Your task to perform on an android device: Open notification settings Image 0: 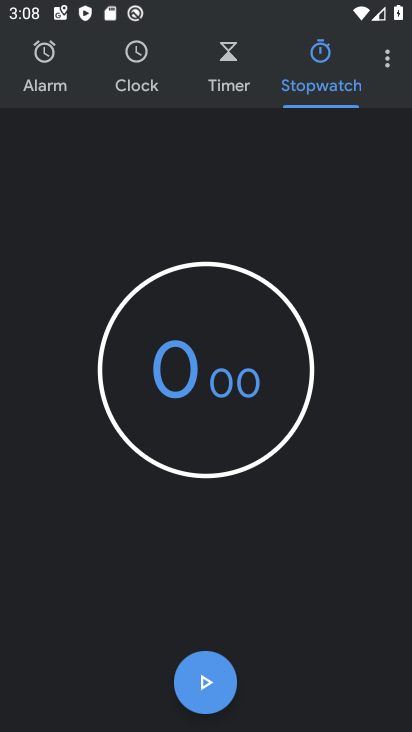
Step 0: press home button
Your task to perform on an android device: Open notification settings Image 1: 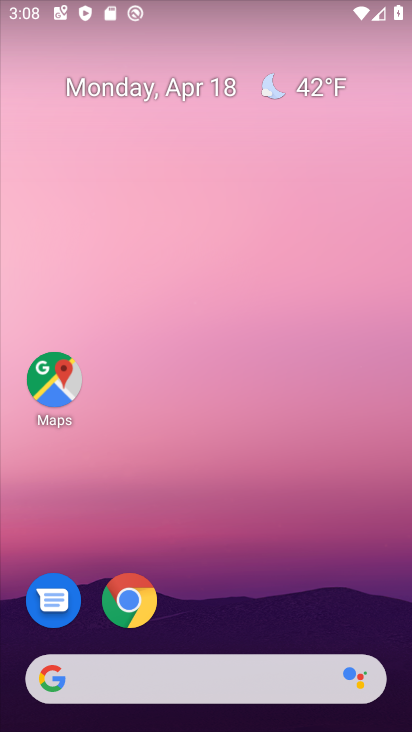
Step 1: drag from (178, 684) to (324, 61)
Your task to perform on an android device: Open notification settings Image 2: 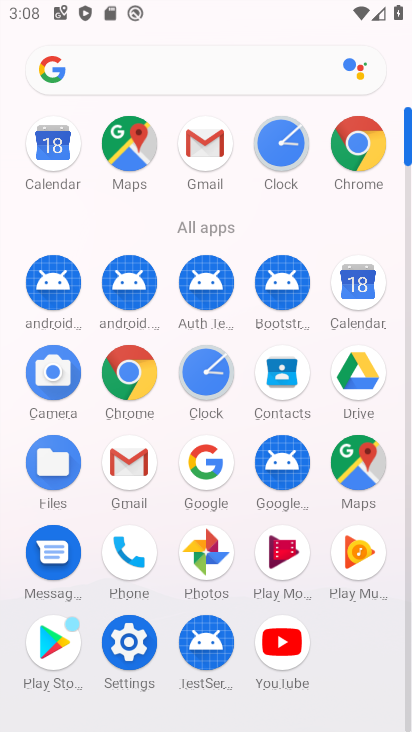
Step 2: click (126, 647)
Your task to perform on an android device: Open notification settings Image 3: 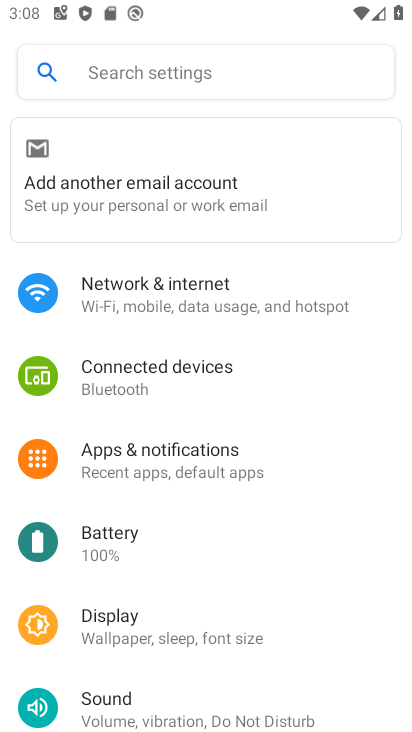
Step 3: click (184, 449)
Your task to perform on an android device: Open notification settings Image 4: 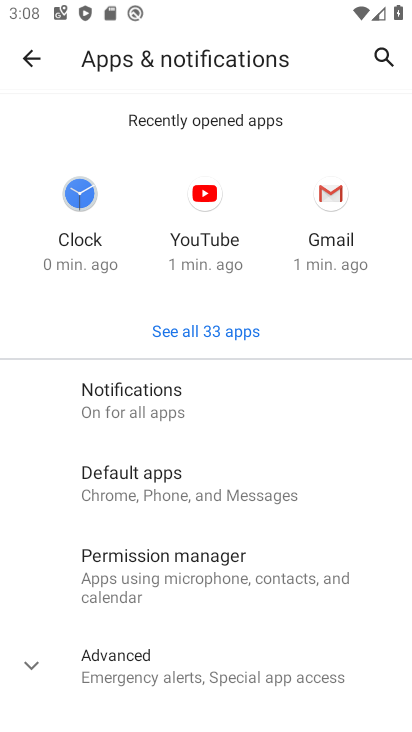
Step 4: click (138, 395)
Your task to perform on an android device: Open notification settings Image 5: 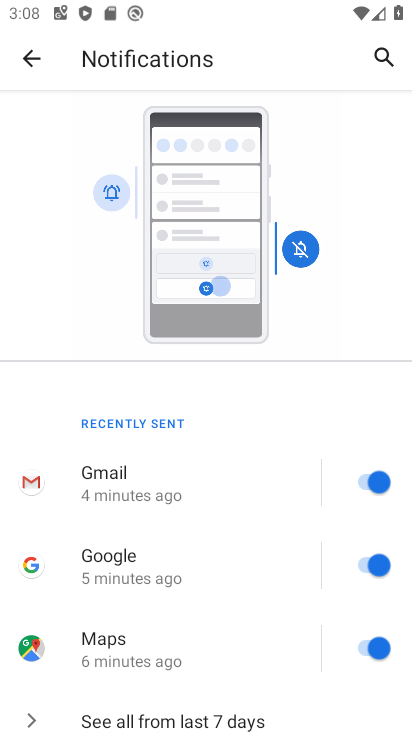
Step 5: task complete